Your task to perform on an android device: Open notification settings Image 0: 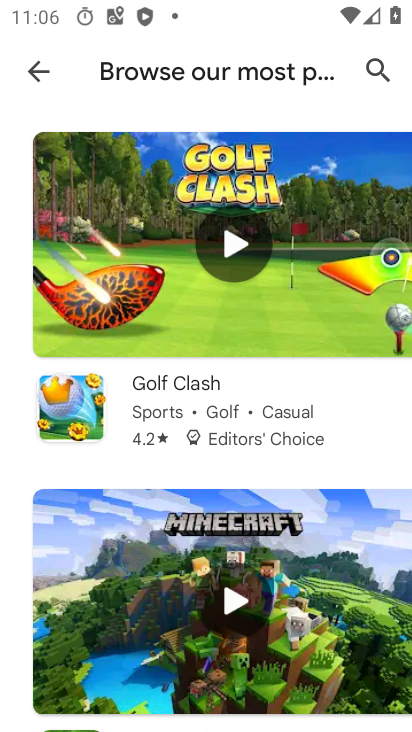
Step 0: press home button
Your task to perform on an android device: Open notification settings Image 1: 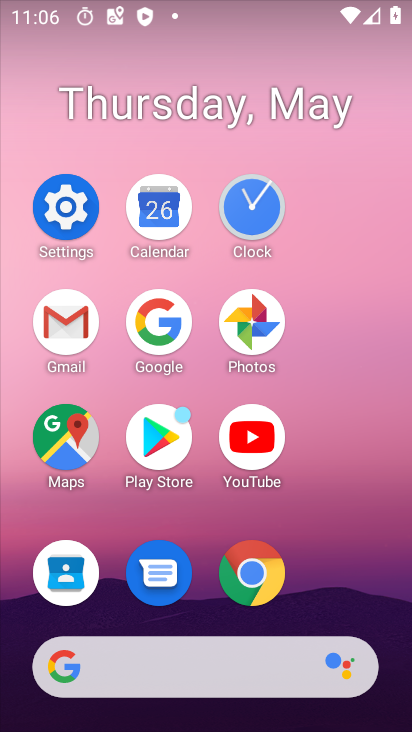
Step 1: click (67, 223)
Your task to perform on an android device: Open notification settings Image 2: 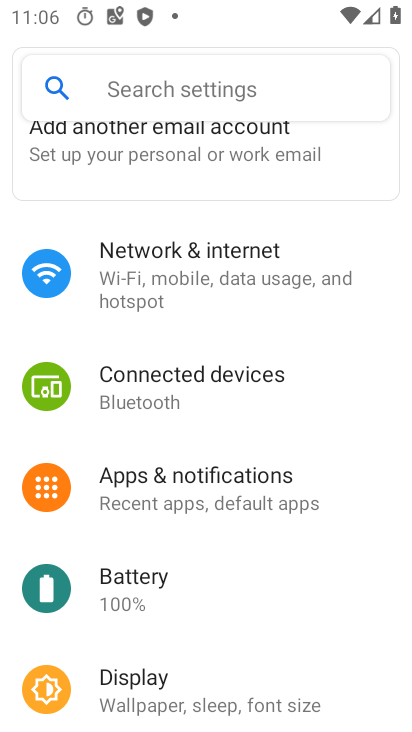
Step 2: click (207, 479)
Your task to perform on an android device: Open notification settings Image 3: 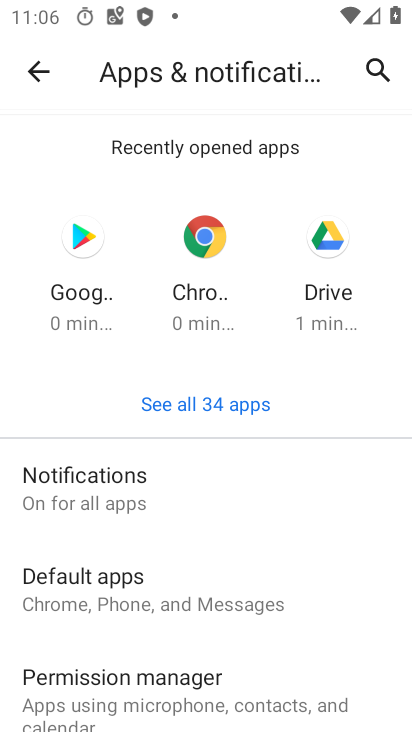
Step 3: task complete